Your task to perform on an android device: check the backup settings in the google photos Image 0: 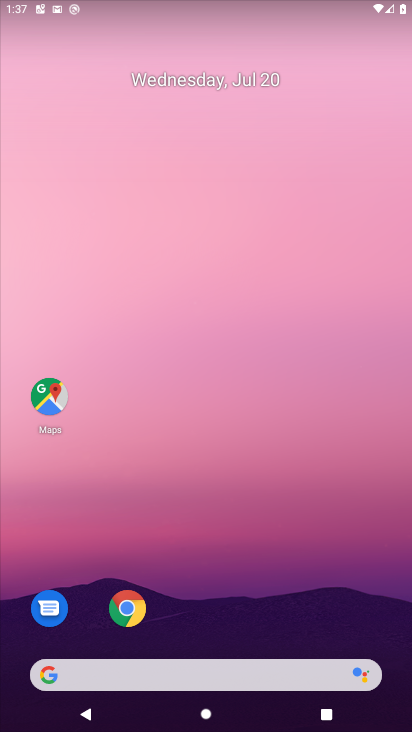
Step 0: drag from (287, 662) to (287, 163)
Your task to perform on an android device: check the backup settings in the google photos Image 1: 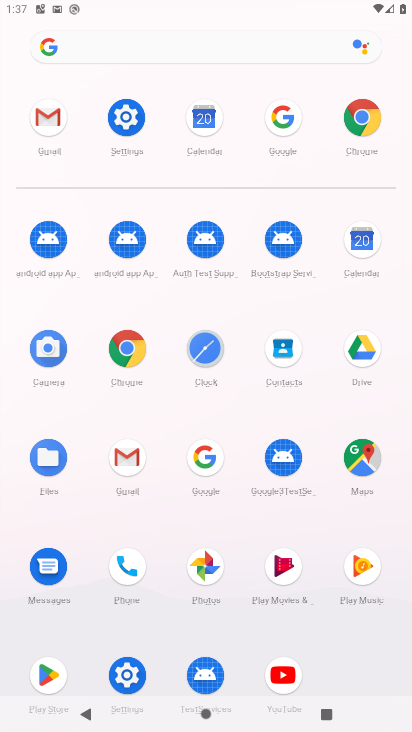
Step 1: click (201, 568)
Your task to perform on an android device: check the backup settings in the google photos Image 2: 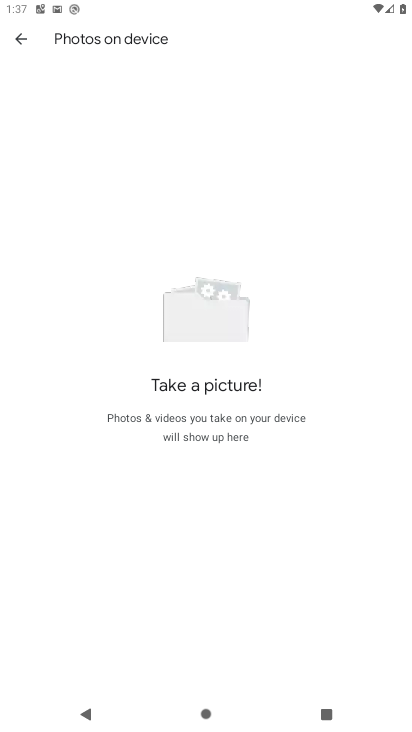
Step 2: click (22, 34)
Your task to perform on an android device: check the backup settings in the google photos Image 3: 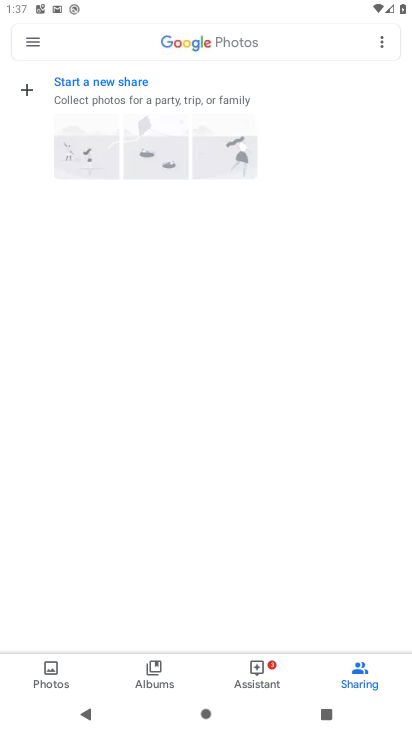
Step 3: click (24, 45)
Your task to perform on an android device: check the backup settings in the google photos Image 4: 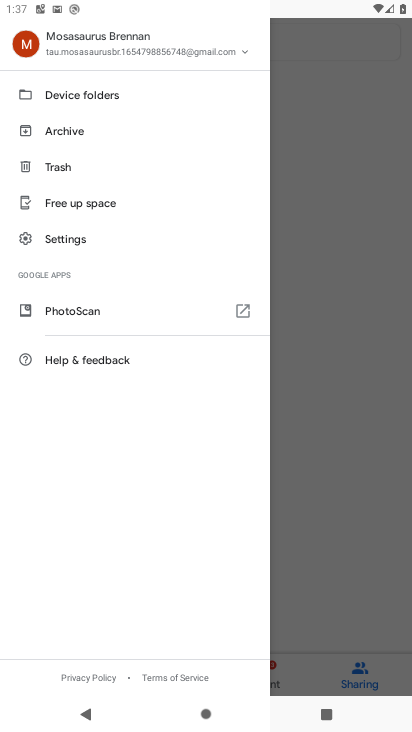
Step 4: click (58, 234)
Your task to perform on an android device: check the backup settings in the google photos Image 5: 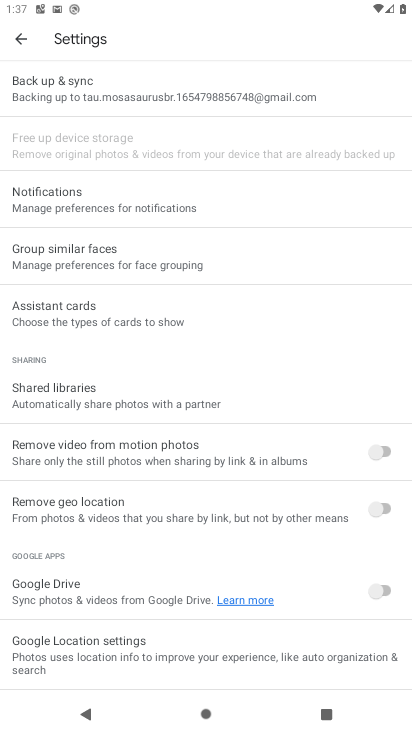
Step 5: click (90, 98)
Your task to perform on an android device: check the backup settings in the google photos Image 6: 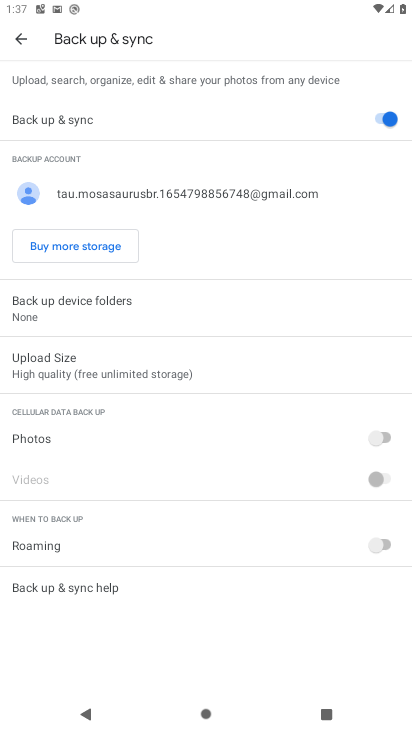
Step 6: task complete